Your task to perform on an android device: turn on location history Image 0: 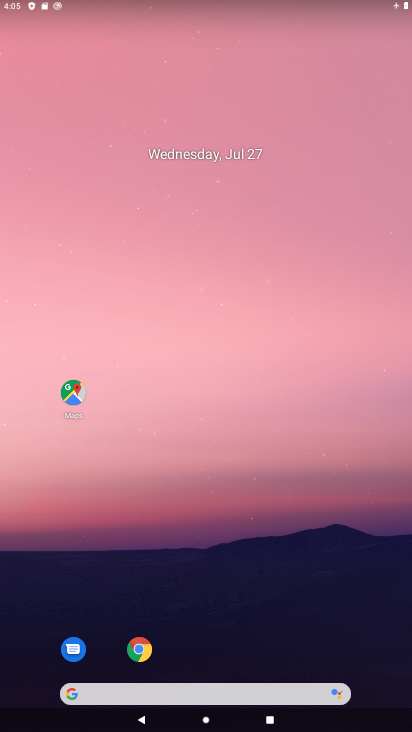
Step 0: drag from (273, 636) to (241, 13)
Your task to perform on an android device: turn on location history Image 1: 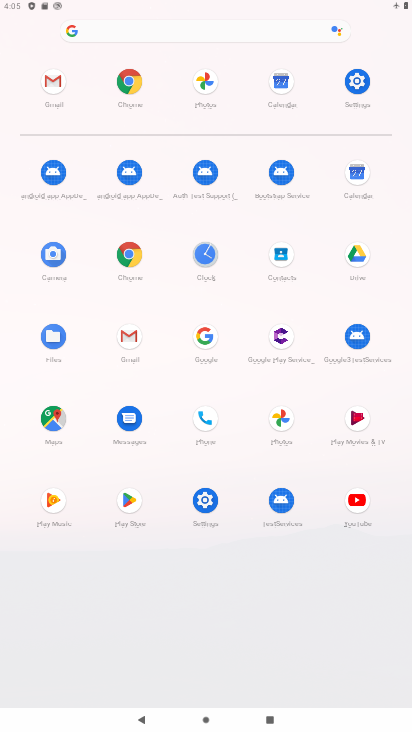
Step 1: click (50, 423)
Your task to perform on an android device: turn on location history Image 2: 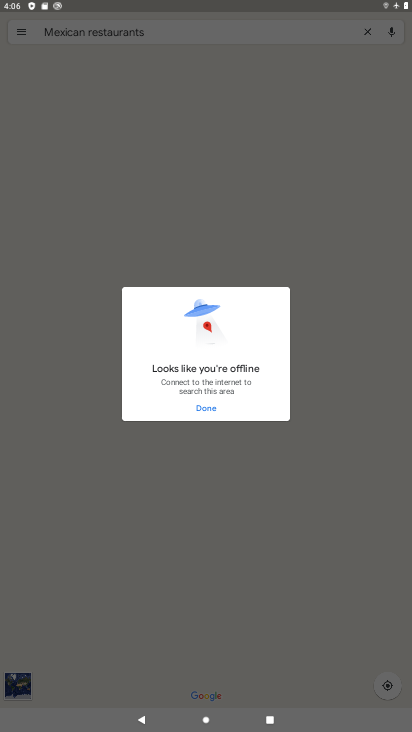
Step 2: click (214, 408)
Your task to perform on an android device: turn on location history Image 3: 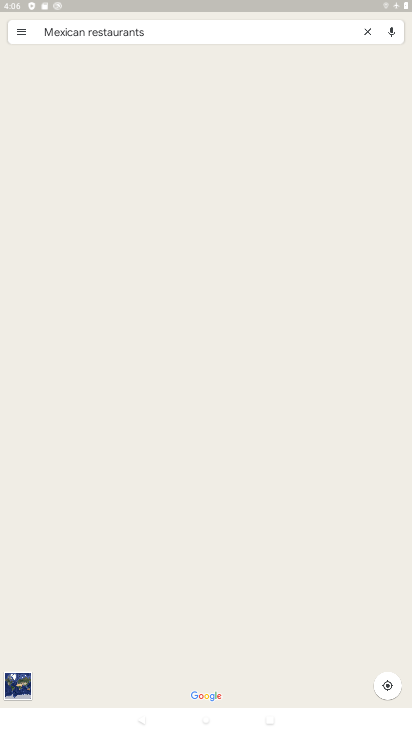
Step 3: click (22, 25)
Your task to perform on an android device: turn on location history Image 4: 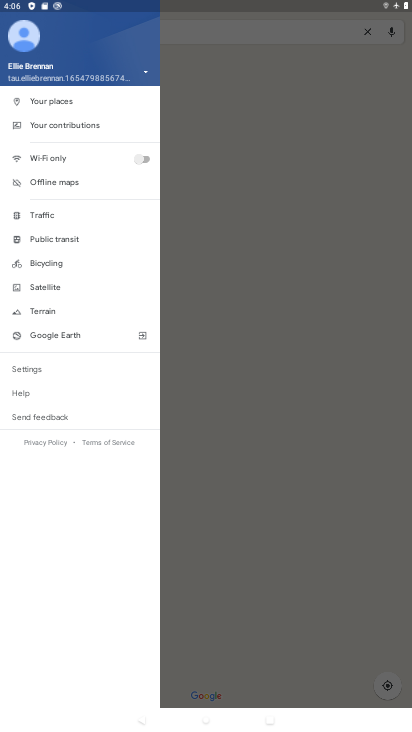
Step 4: task complete